Your task to perform on an android device: Add alienware aurora to the cart on target, then select checkout. Image 0: 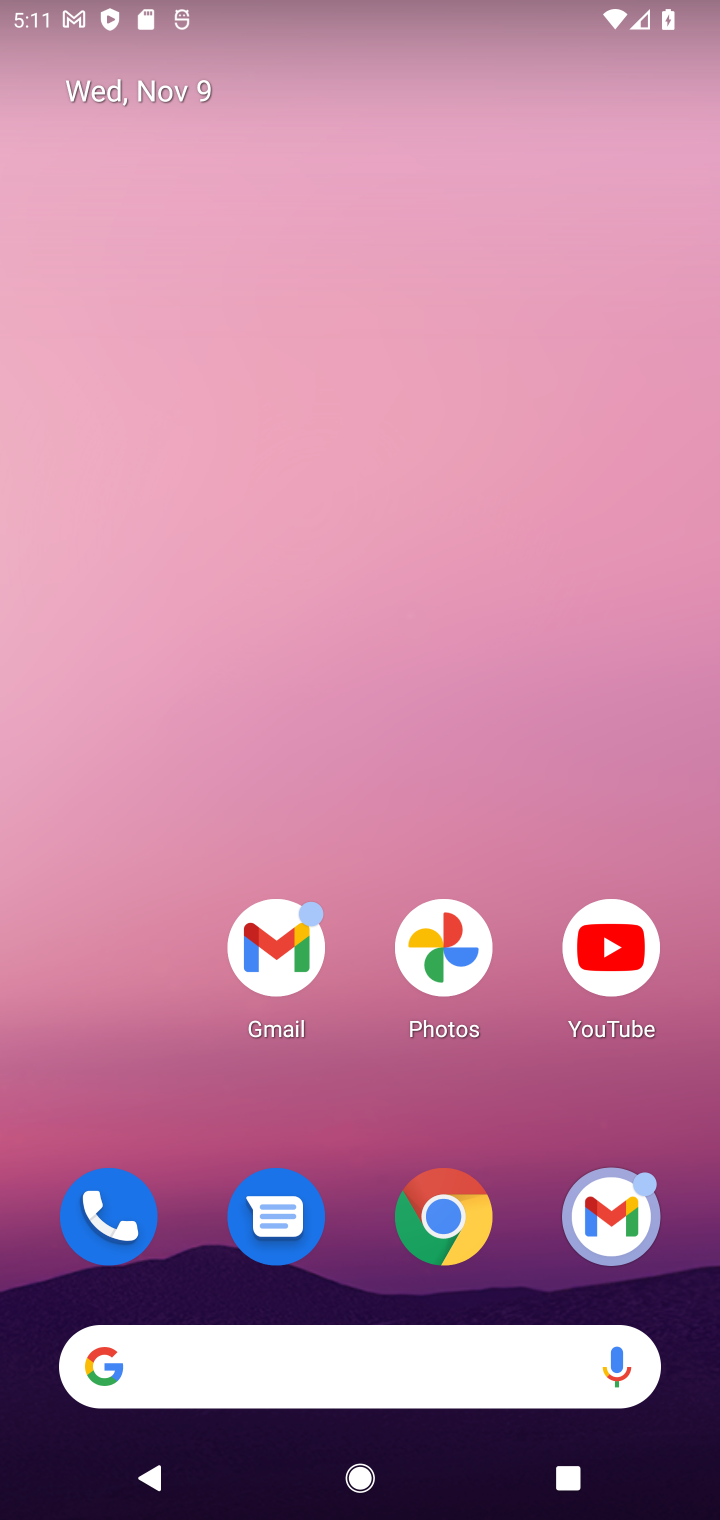
Step 0: drag from (366, 1018) to (377, 259)
Your task to perform on an android device: Add alienware aurora to the cart on target, then select checkout. Image 1: 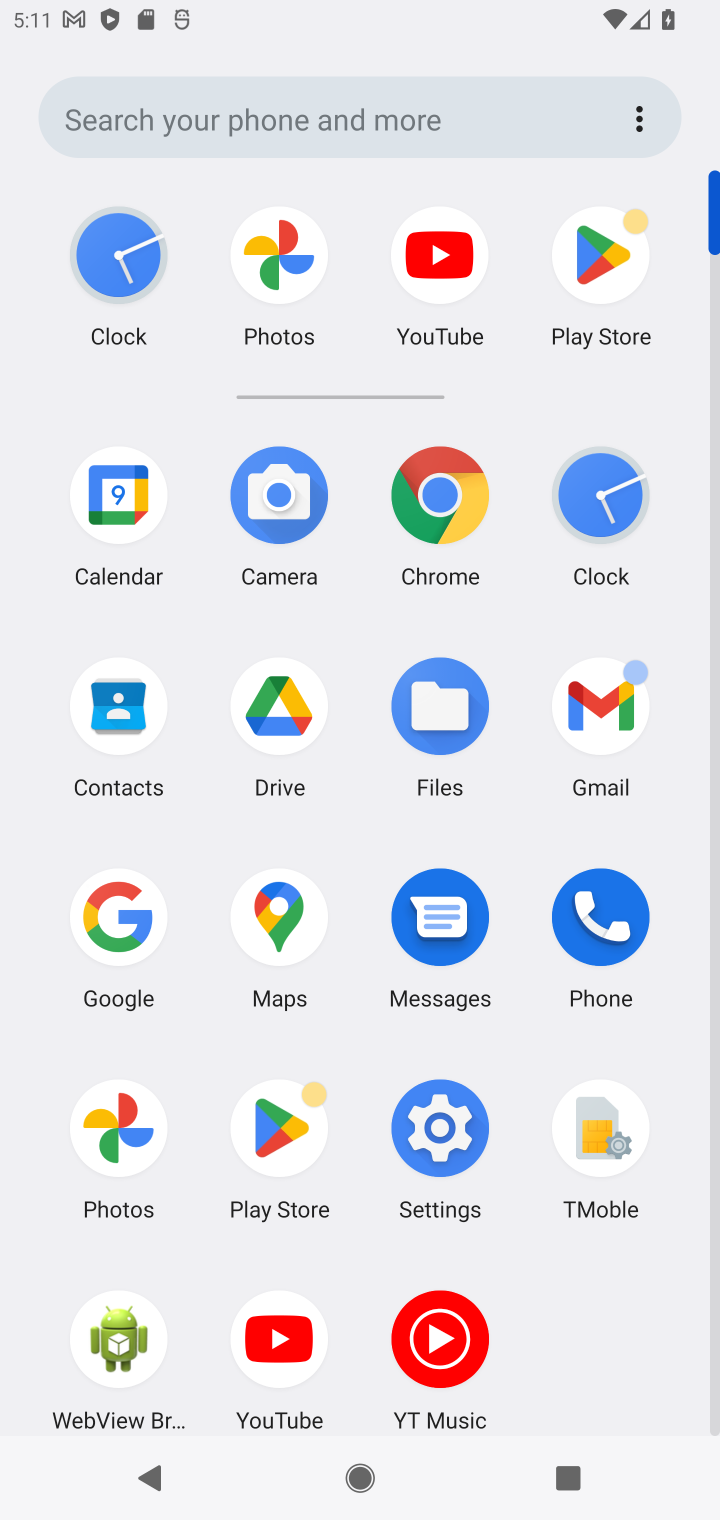
Step 1: click (442, 499)
Your task to perform on an android device: Add alienware aurora to the cart on target, then select checkout. Image 2: 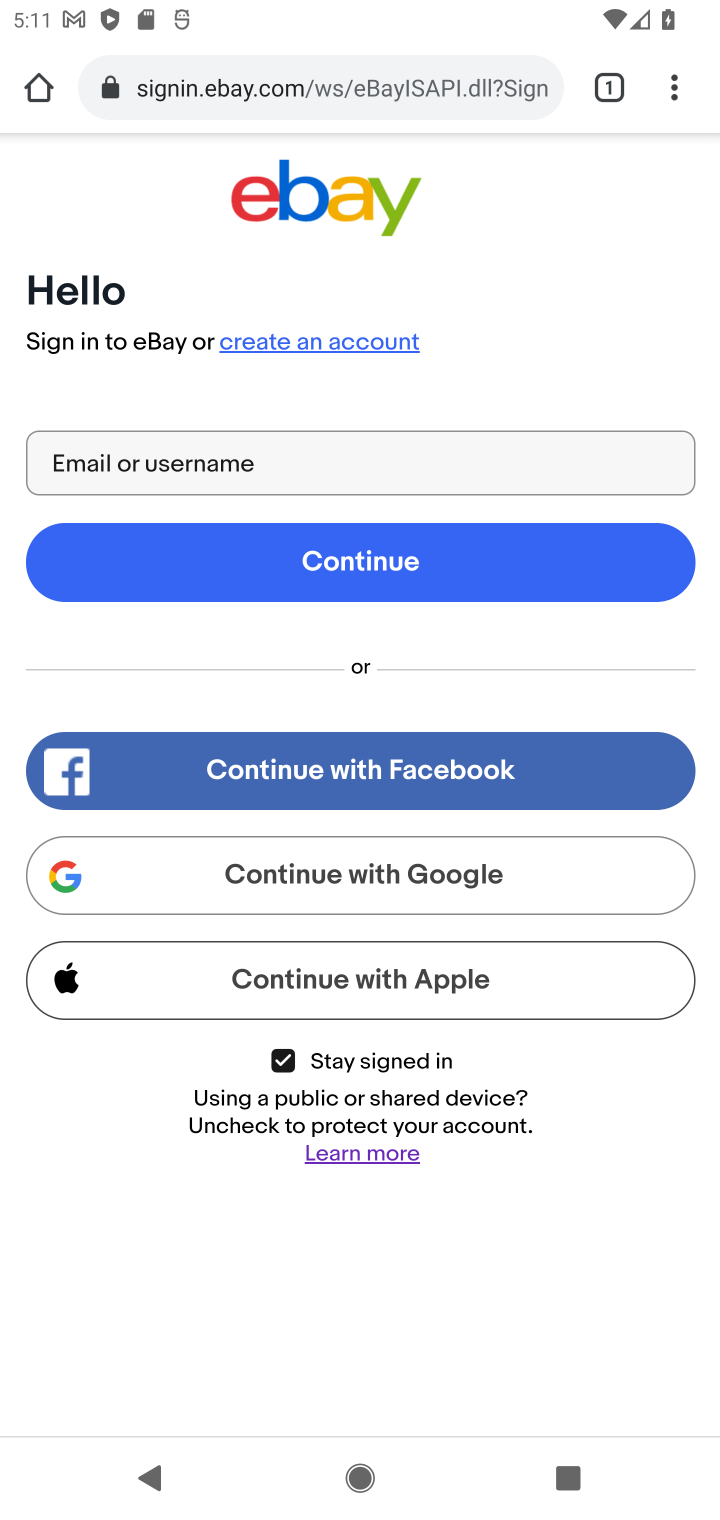
Step 2: click (442, 88)
Your task to perform on an android device: Add alienware aurora to the cart on target, then select checkout. Image 3: 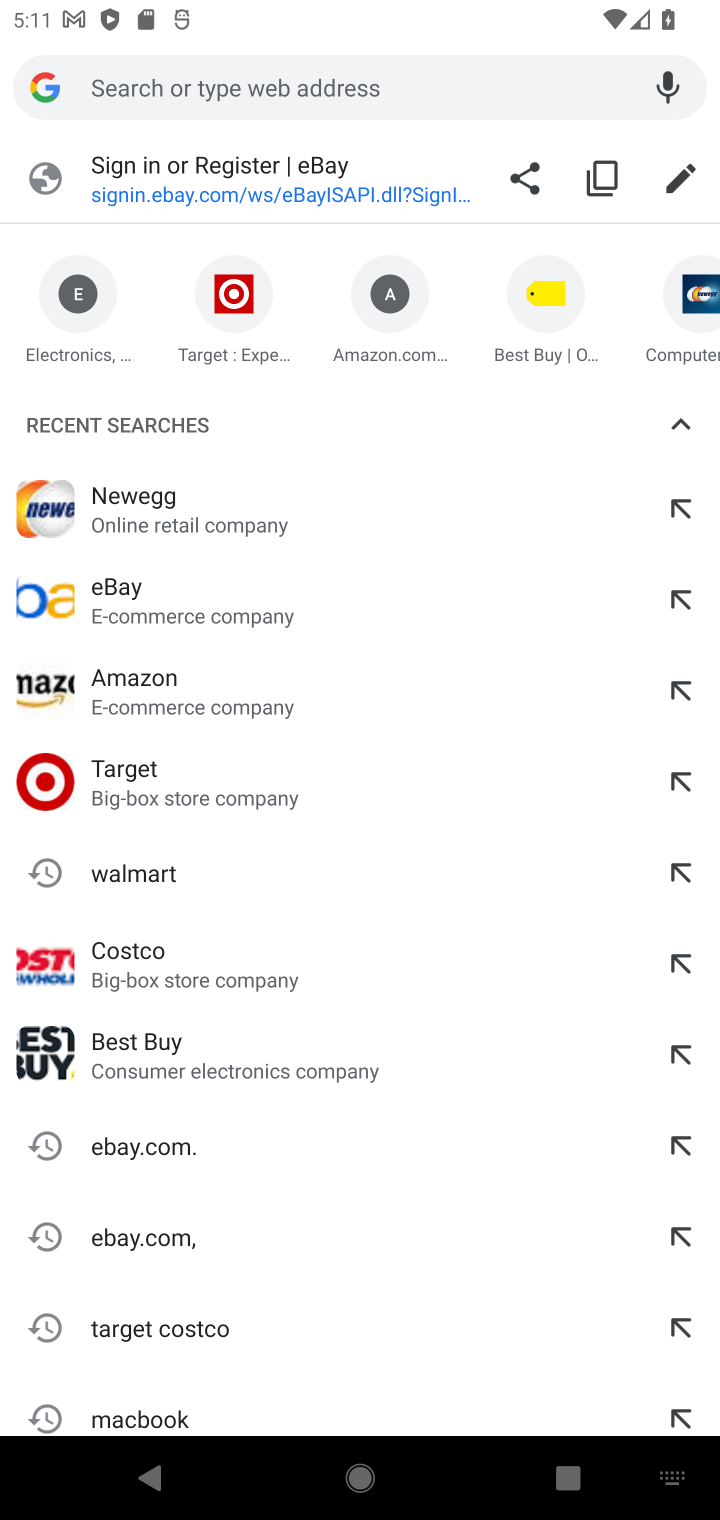
Step 3: type "target.com"
Your task to perform on an android device: Add alienware aurora to the cart on target, then select checkout. Image 4: 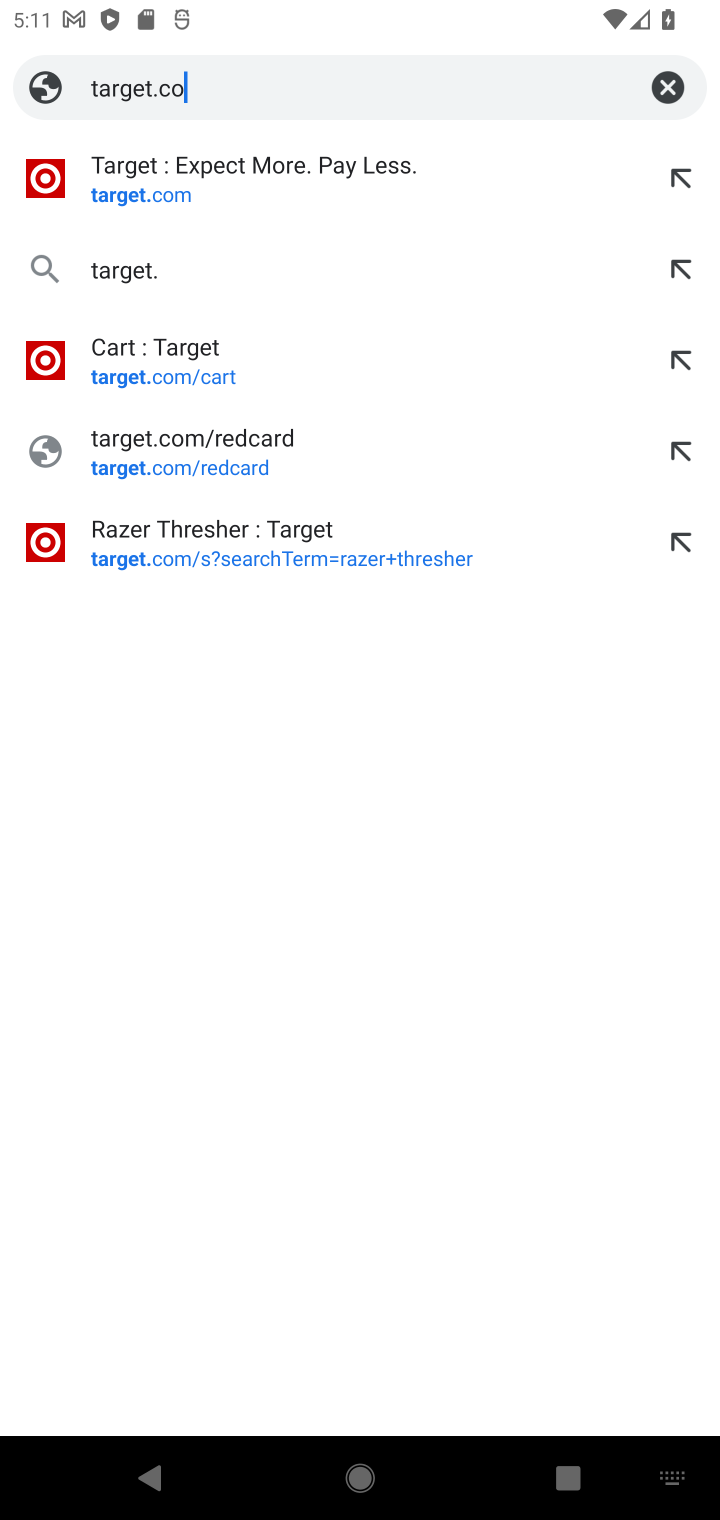
Step 4: press enter
Your task to perform on an android device: Add alienware aurora to the cart on target, then select checkout. Image 5: 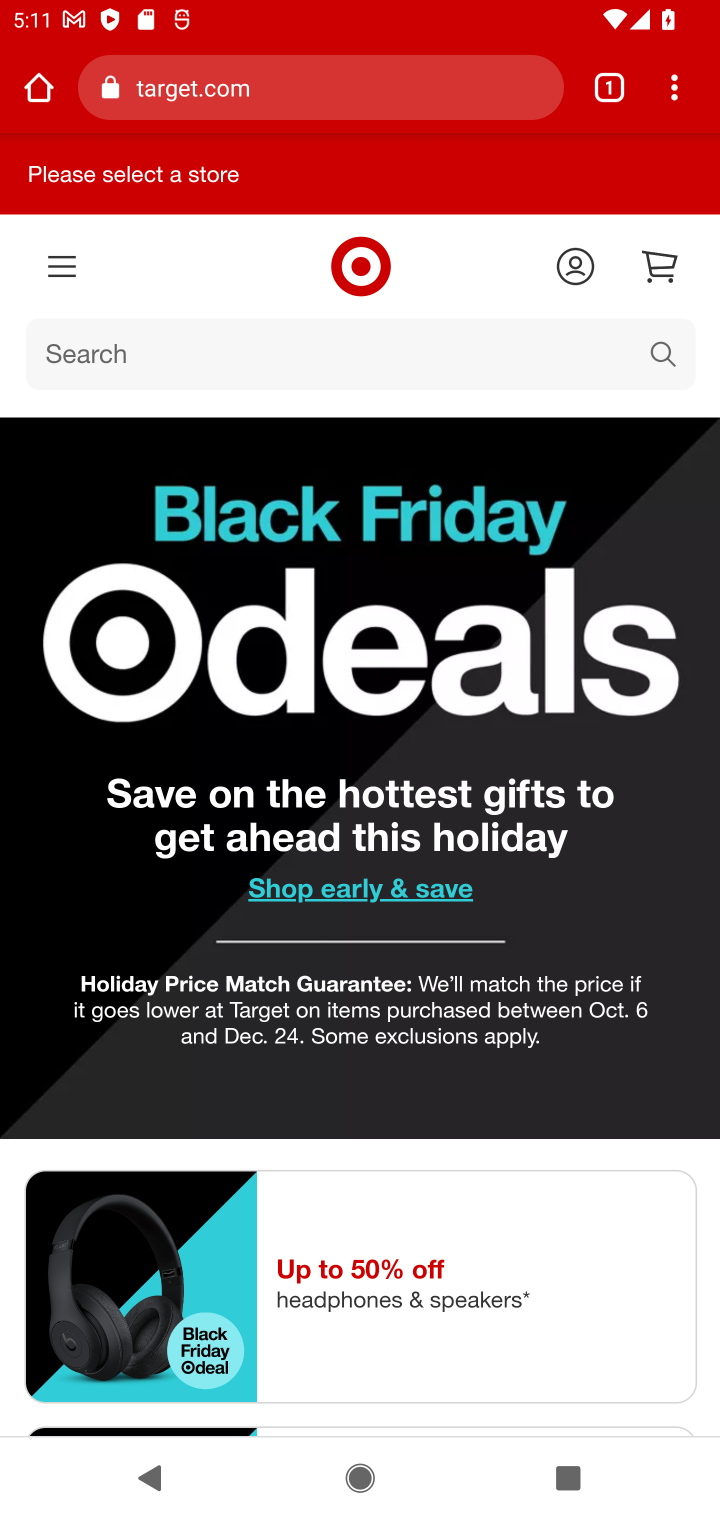
Step 5: click (467, 367)
Your task to perform on an android device: Add alienware aurora to the cart on target, then select checkout. Image 6: 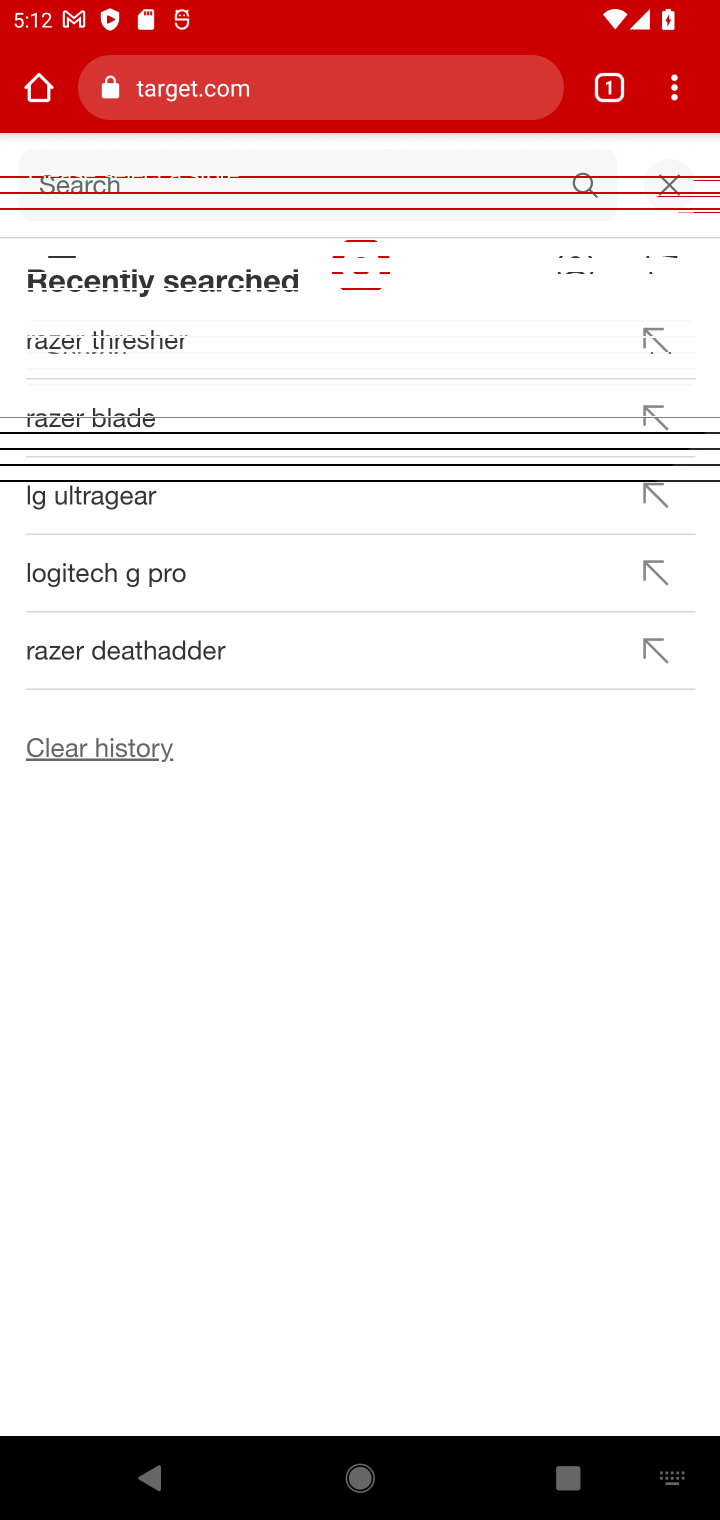
Step 6: type "alienware aurora"
Your task to perform on an android device: Add alienware aurora to the cart on target, then select checkout. Image 7: 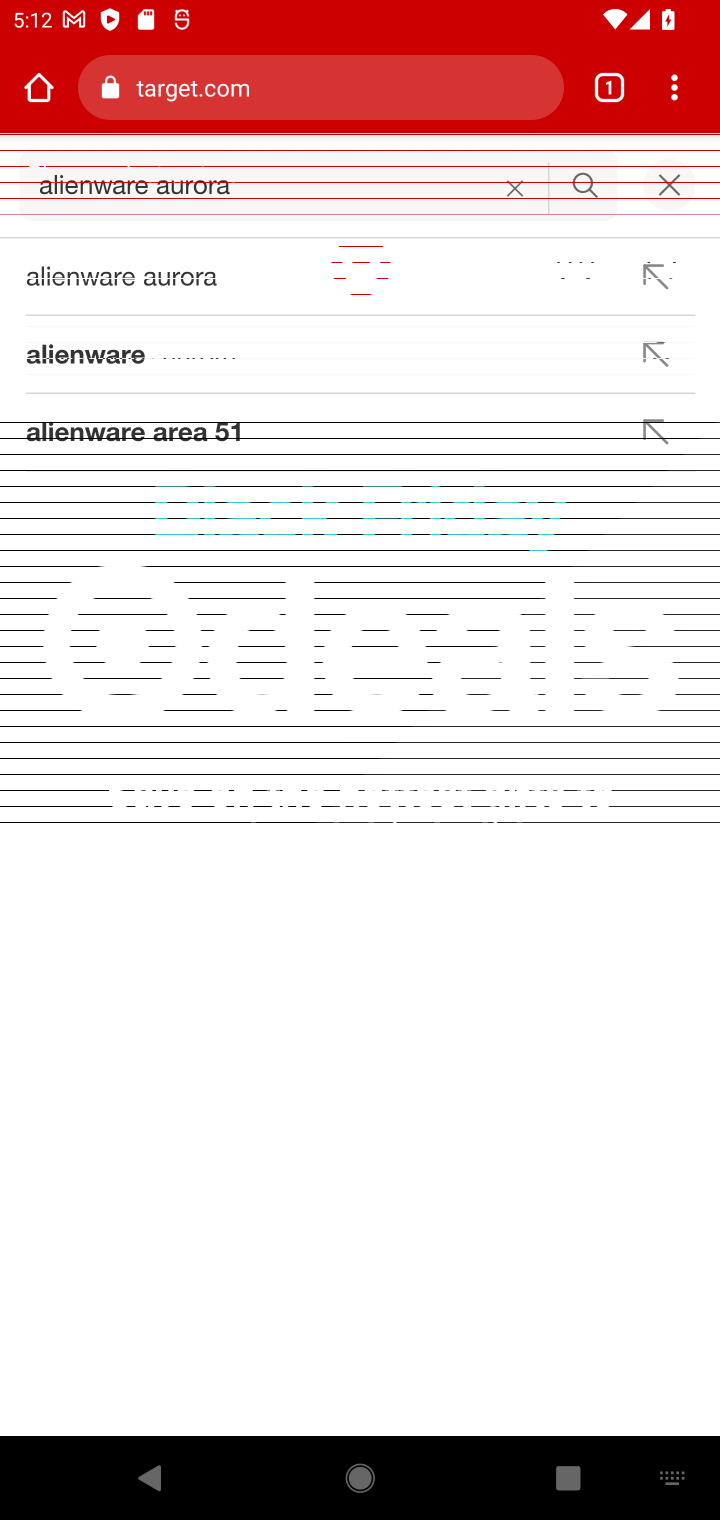
Step 7: press enter
Your task to perform on an android device: Add alienware aurora to the cart on target, then select checkout. Image 8: 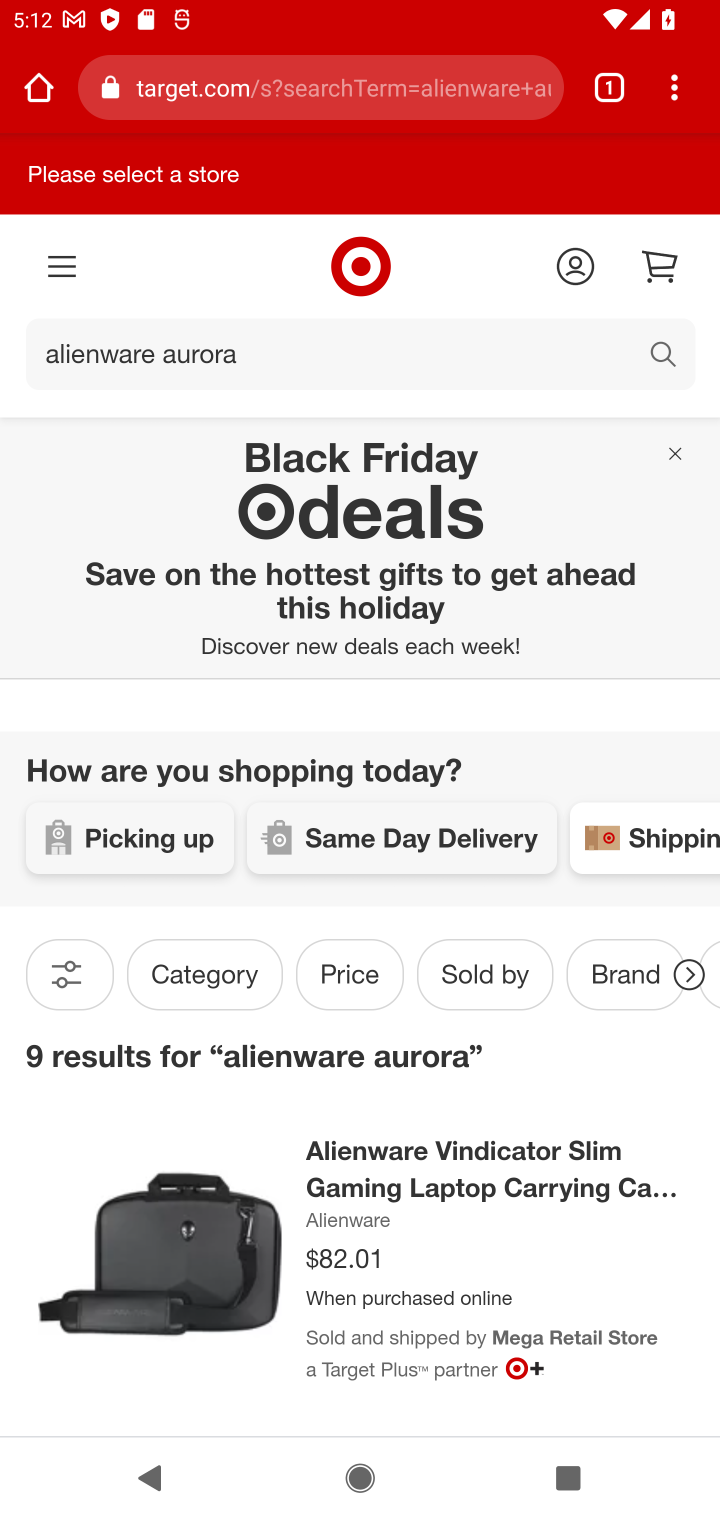
Step 8: task complete